Your task to perform on an android device: all mails in gmail Image 0: 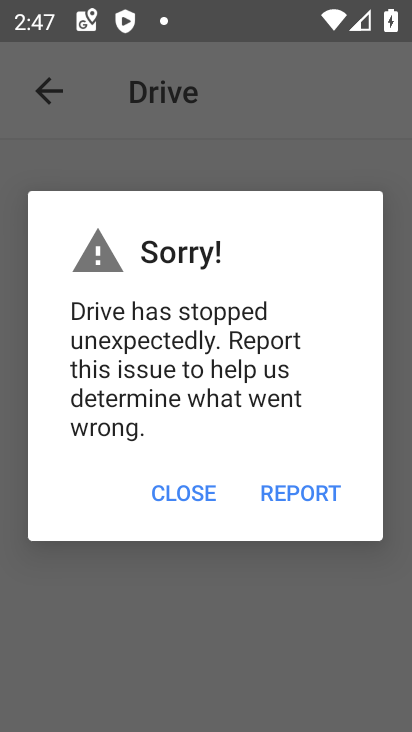
Step 0: press back button
Your task to perform on an android device: all mails in gmail Image 1: 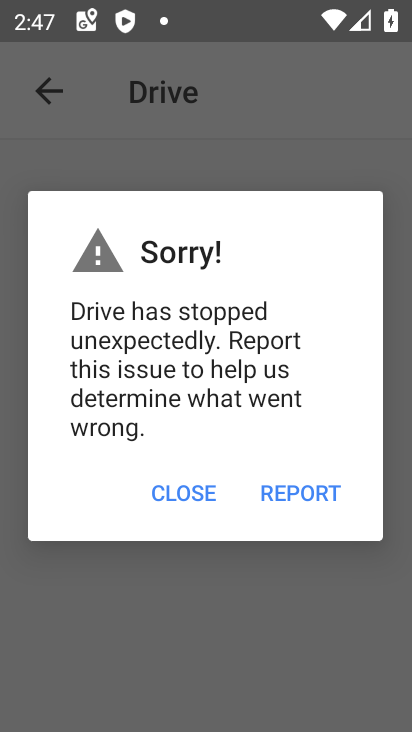
Step 1: press home button
Your task to perform on an android device: all mails in gmail Image 2: 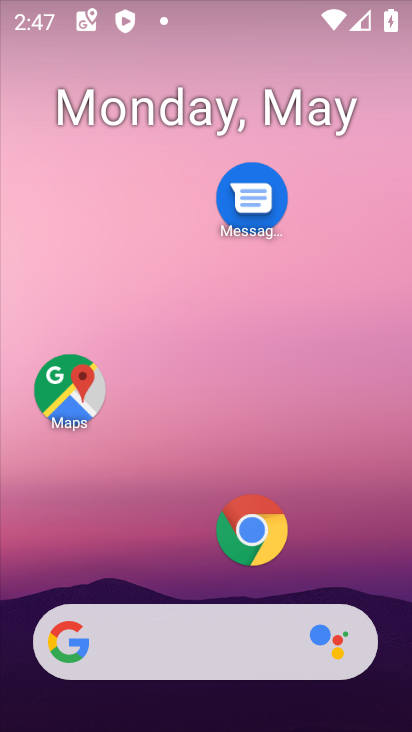
Step 2: drag from (166, 548) to (276, 22)
Your task to perform on an android device: all mails in gmail Image 3: 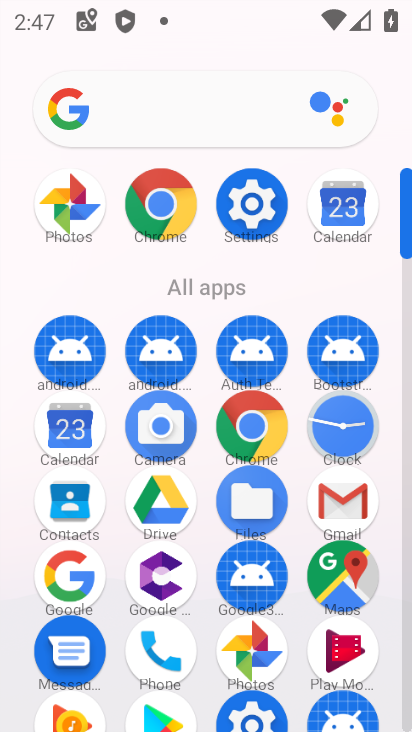
Step 3: click (350, 503)
Your task to perform on an android device: all mails in gmail Image 4: 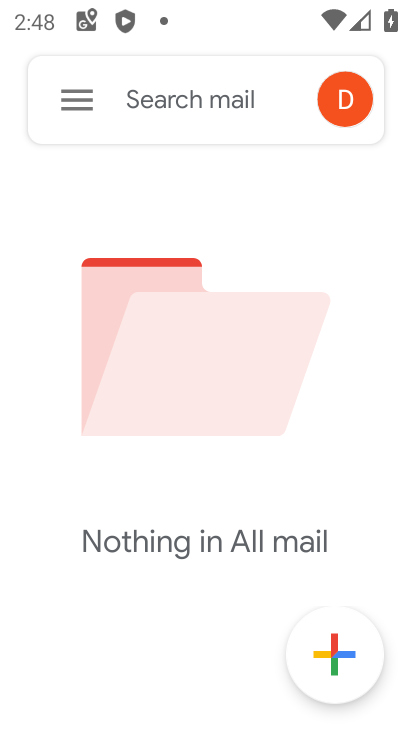
Step 4: task complete